Your task to perform on an android device: open a bookmark in the chrome app Image 0: 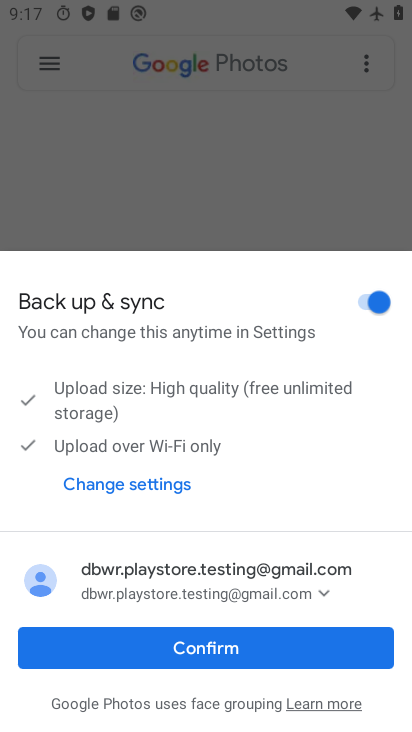
Step 0: click (346, 156)
Your task to perform on an android device: open a bookmark in the chrome app Image 1: 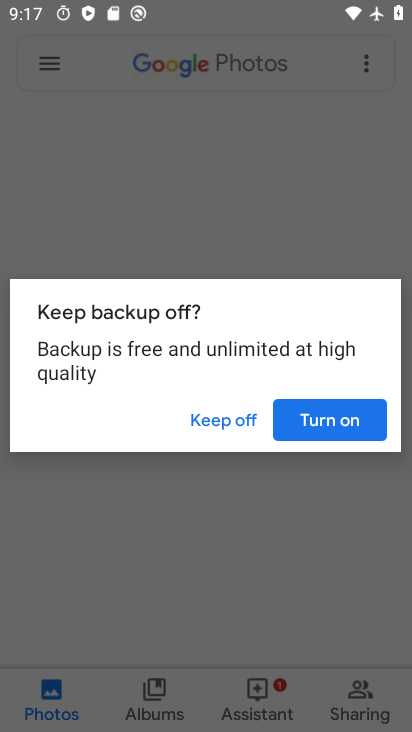
Step 1: press home button
Your task to perform on an android device: open a bookmark in the chrome app Image 2: 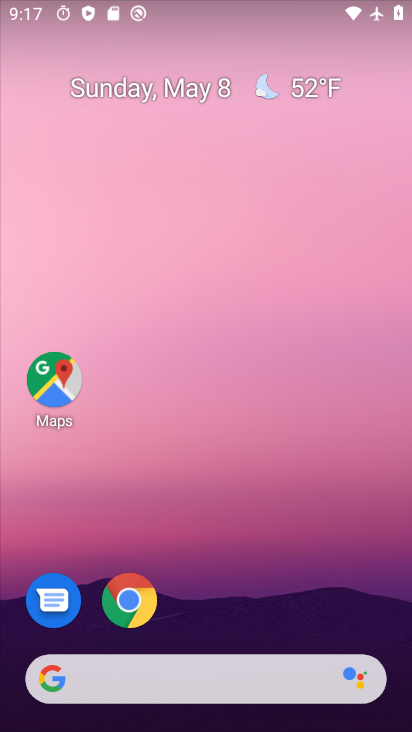
Step 2: click (131, 619)
Your task to perform on an android device: open a bookmark in the chrome app Image 3: 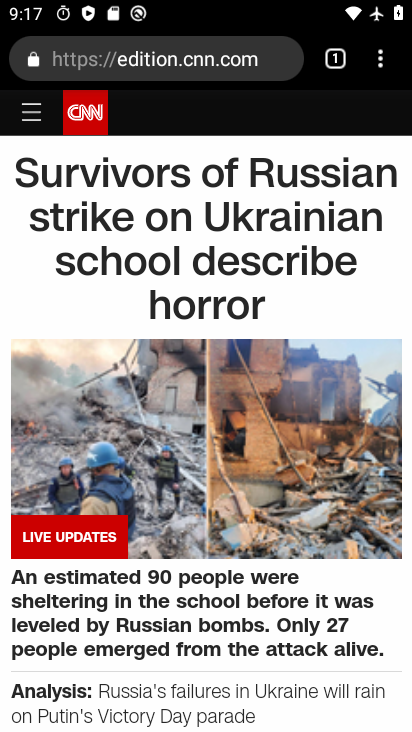
Step 3: drag from (382, 61) to (305, 185)
Your task to perform on an android device: open a bookmark in the chrome app Image 4: 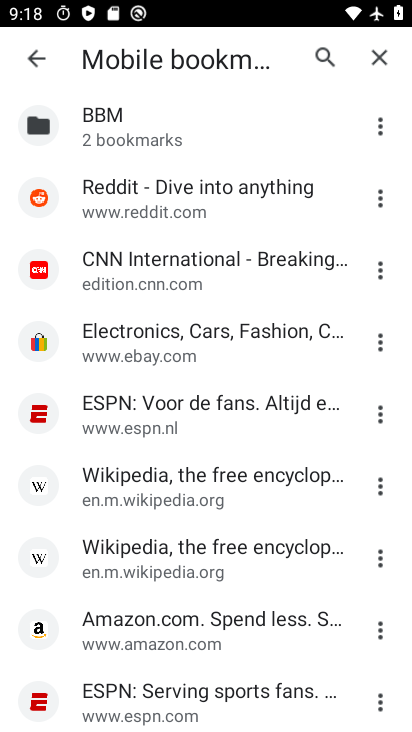
Step 4: click (226, 339)
Your task to perform on an android device: open a bookmark in the chrome app Image 5: 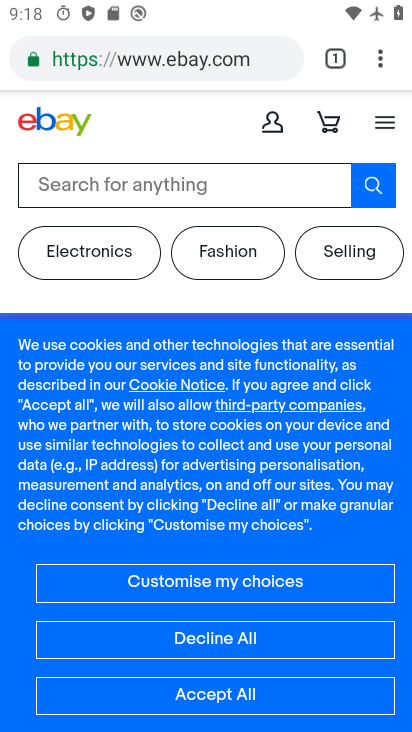
Step 5: task complete